Your task to perform on an android device: turn pop-ups on in chrome Image 0: 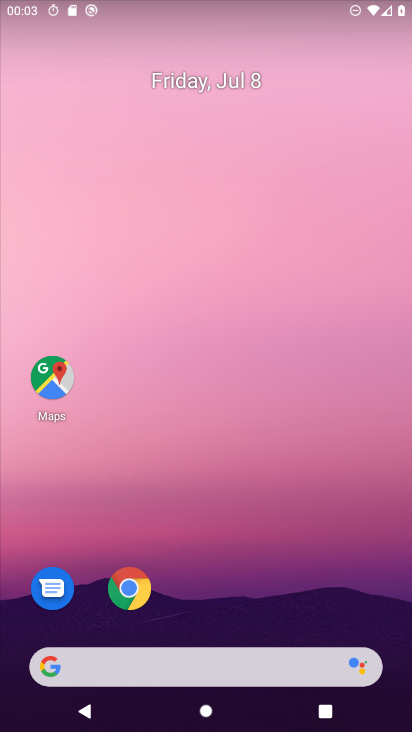
Step 0: drag from (252, 582) to (338, 54)
Your task to perform on an android device: turn pop-ups on in chrome Image 1: 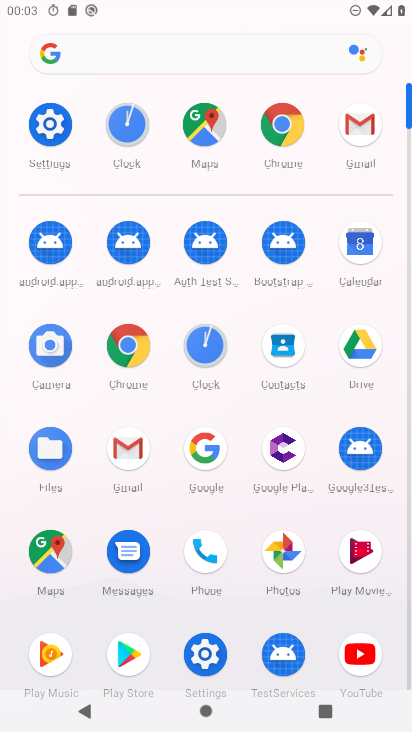
Step 1: click (278, 120)
Your task to perform on an android device: turn pop-ups on in chrome Image 2: 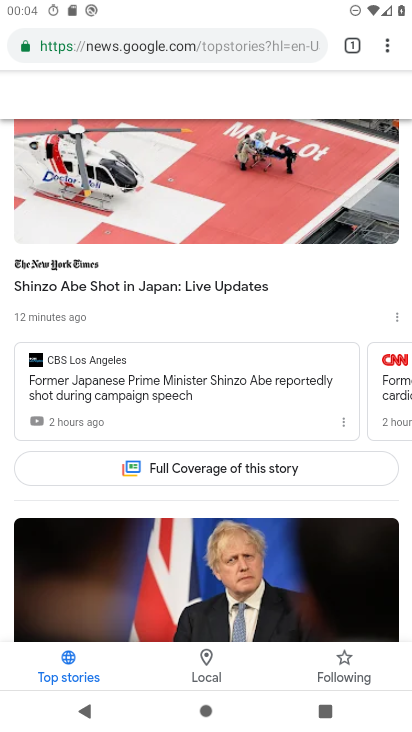
Step 2: drag from (391, 42) to (241, 546)
Your task to perform on an android device: turn pop-ups on in chrome Image 3: 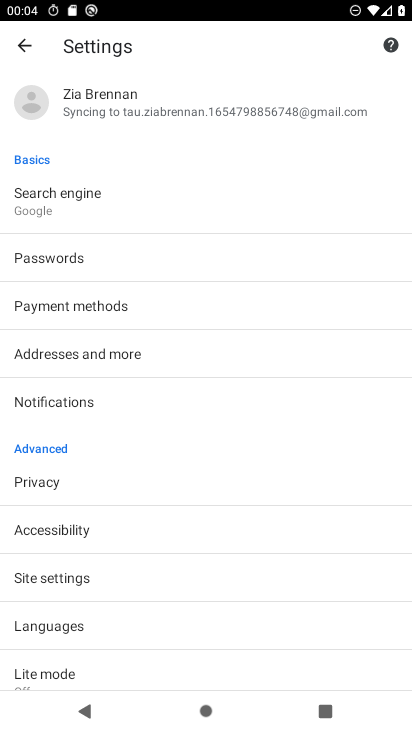
Step 3: click (40, 580)
Your task to perform on an android device: turn pop-ups on in chrome Image 4: 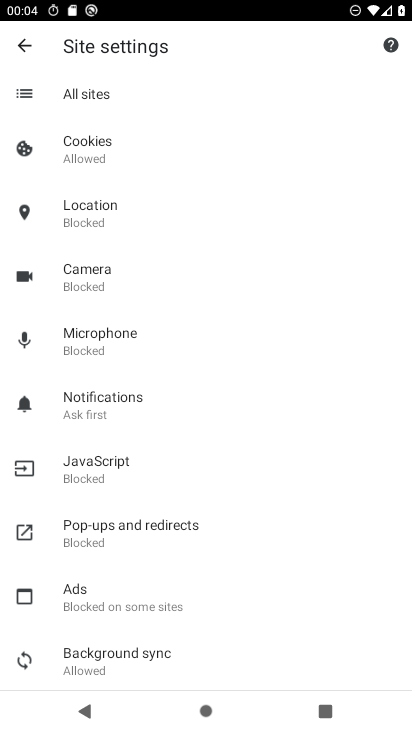
Step 4: click (188, 530)
Your task to perform on an android device: turn pop-ups on in chrome Image 5: 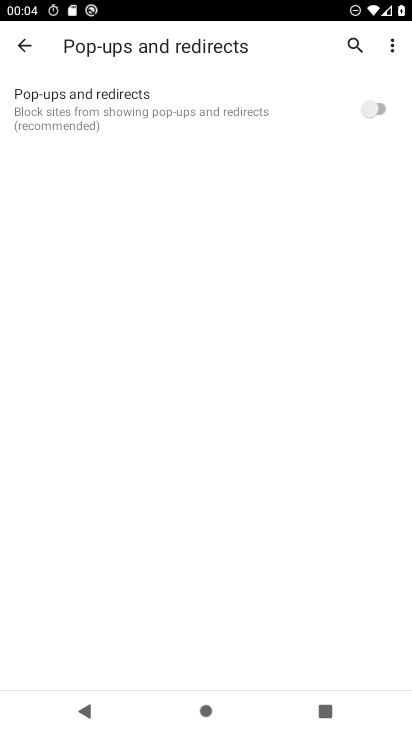
Step 5: click (365, 110)
Your task to perform on an android device: turn pop-ups on in chrome Image 6: 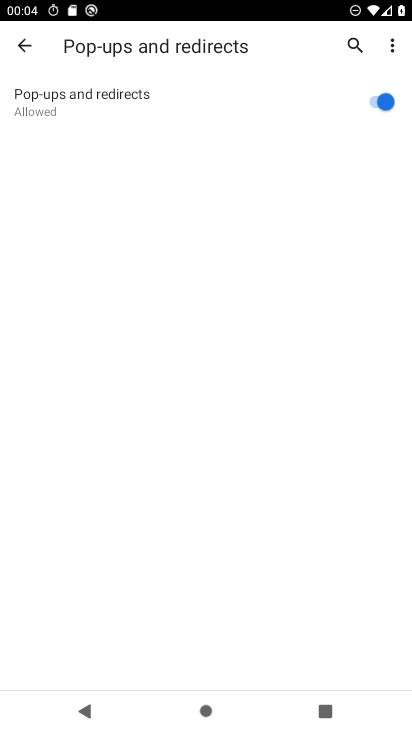
Step 6: task complete